Your task to perform on an android device: toggle location history Image 0: 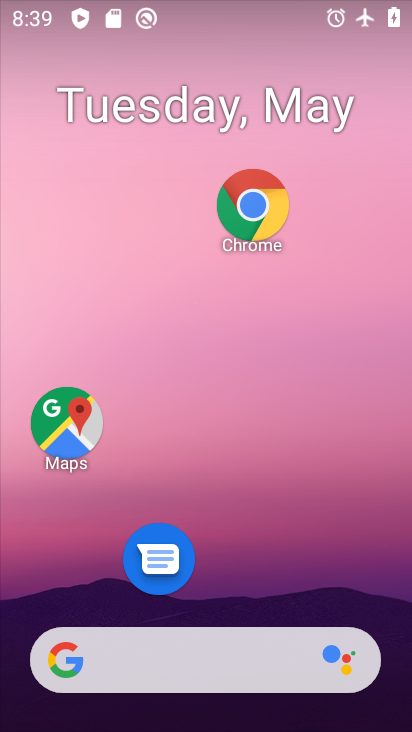
Step 0: drag from (237, 575) to (252, 223)
Your task to perform on an android device: toggle location history Image 1: 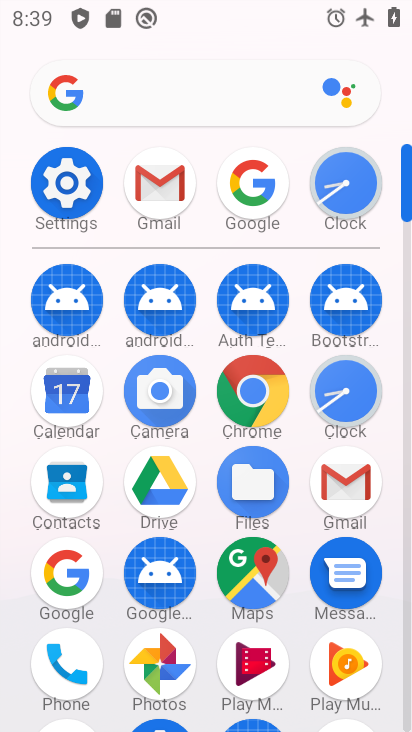
Step 1: click (34, 200)
Your task to perform on an android device: toggle location history Image 2: 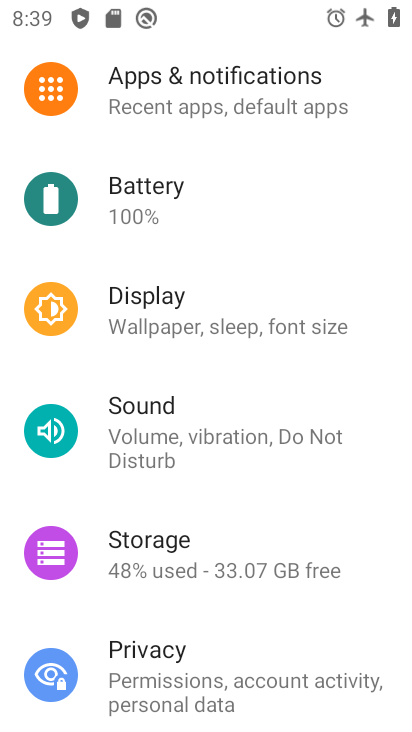
Step 2: drag from (201, 654) to (217, 454)
Your task to perform on an android device: toggle location history Image 3: 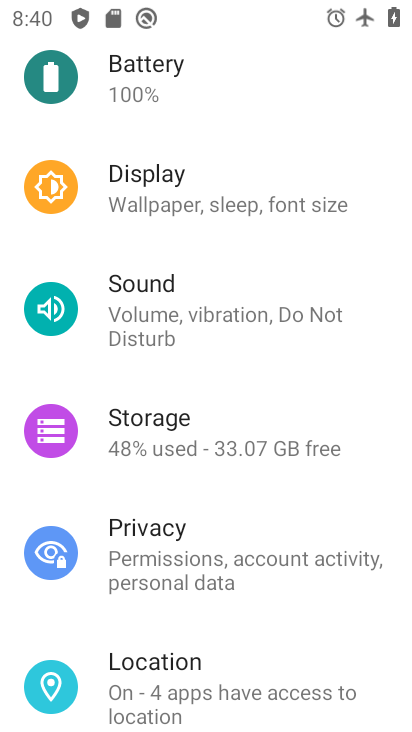
Step 3: drag from (213, 657) to (217, 365)
Your task to perform on an android device: toggle location history Image 4: 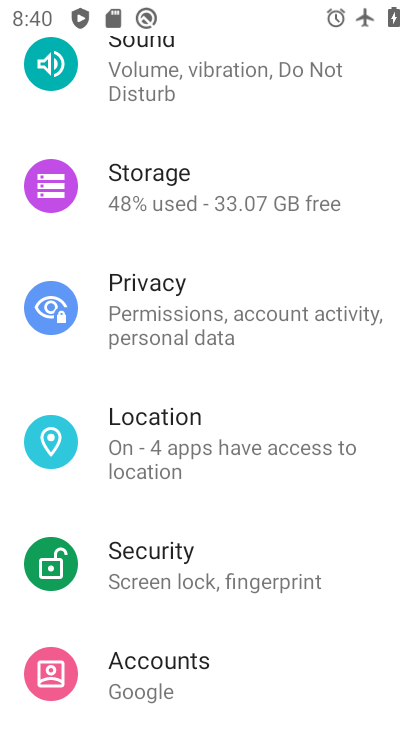
Step 4: click (218, 458)
Your task to perform on an android device: toggle location history Image 5: 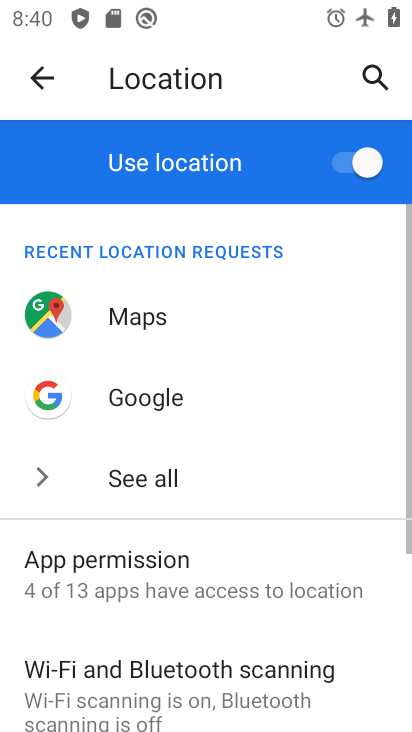
Step 5: drag from (219, 613) to (256, 257)
Your task to perform on an android device: toggle location history Image 6: 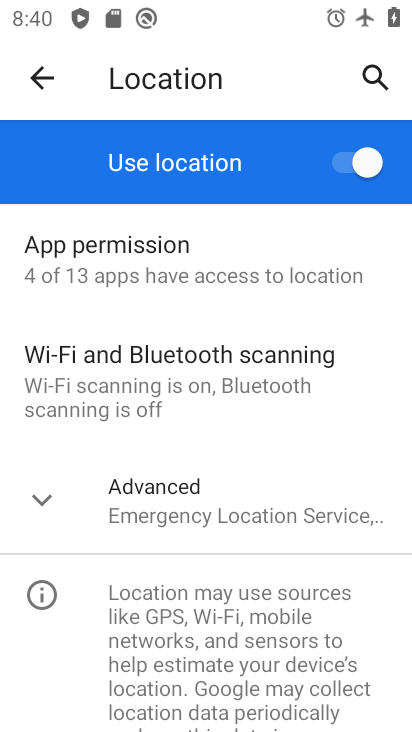
Step 6: click (131, 510)
Your task to perform on an android device: toggle location history Image 7: 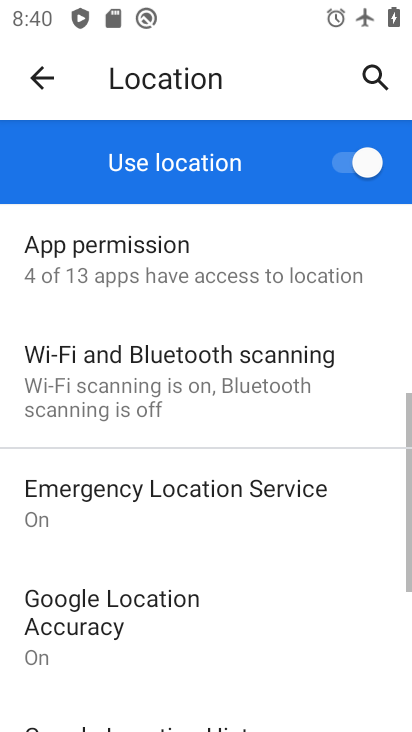
Step 7: drag from (188, 604) to (272, 336)
Your task to perform on an android device: toggle location history Image 8: 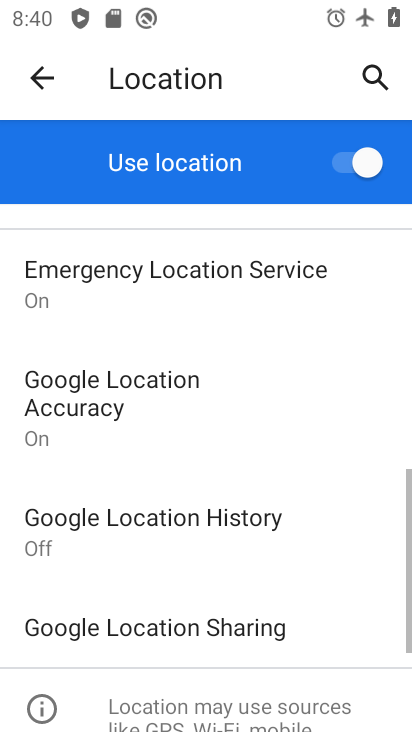
Step 8: click (223, 544)
Your task to perform on an android device: toggle location history Image 9: 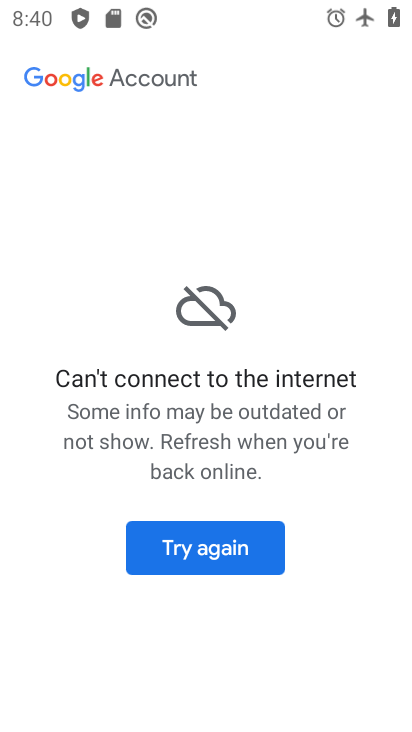
Step 9: task complete